Your task to perform on an android device: turn on wifi Image 0: 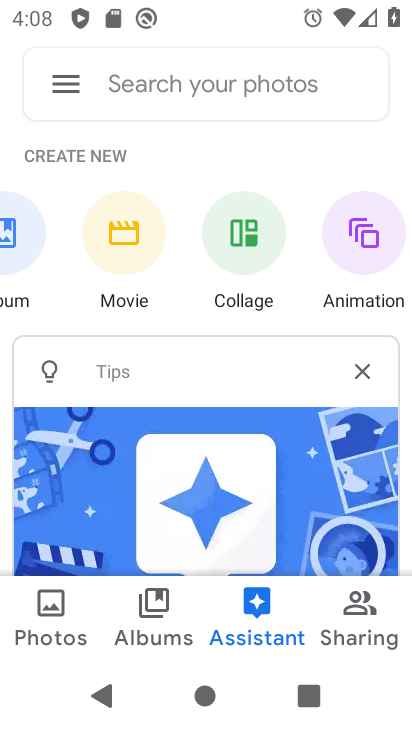
Step 0: press home button
Your task to perform on an android device: turn on wifi Image 1: 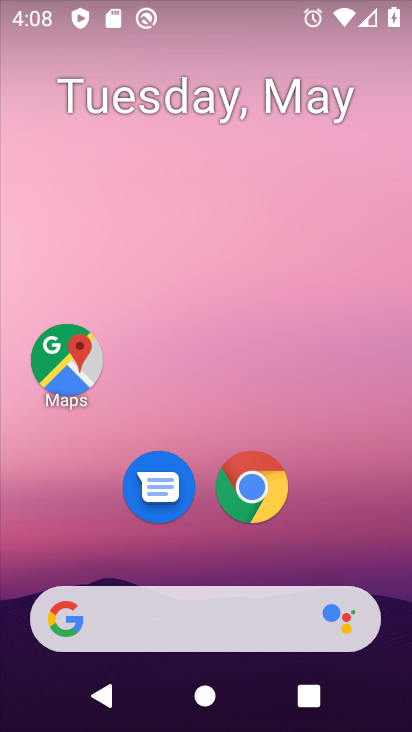
Step 1: task complete